Your task to perform on an android device: Open Google Image 0: 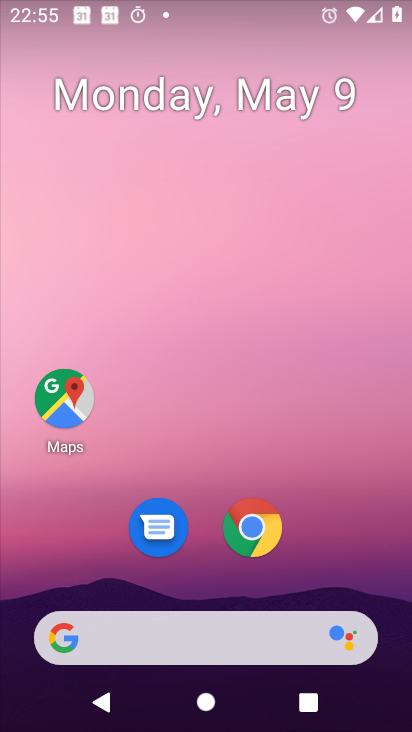
Step 0: drag from (210, 571) to (227, 82)
Your task to perform on an android device: Open Google Image 1: 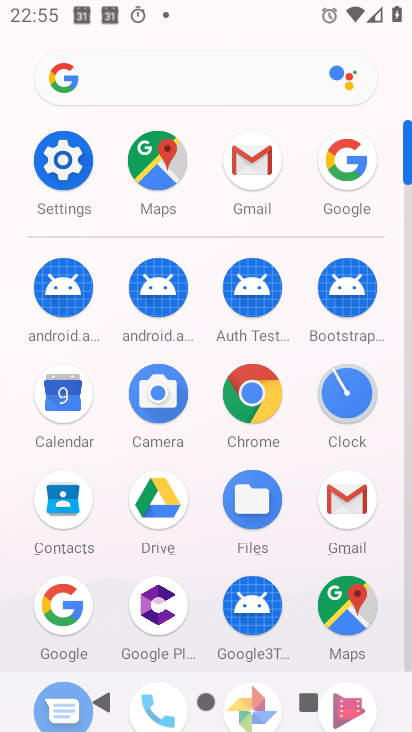
Step 1: click (66, 606)
Your task to perform on an android device: Open Google Image 2: 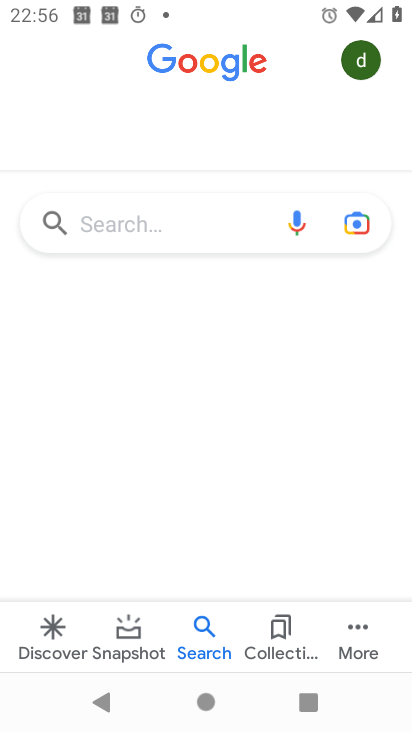
Step 2: task complete